Your task to perform on an android device: change the clock display to analog Image 0: 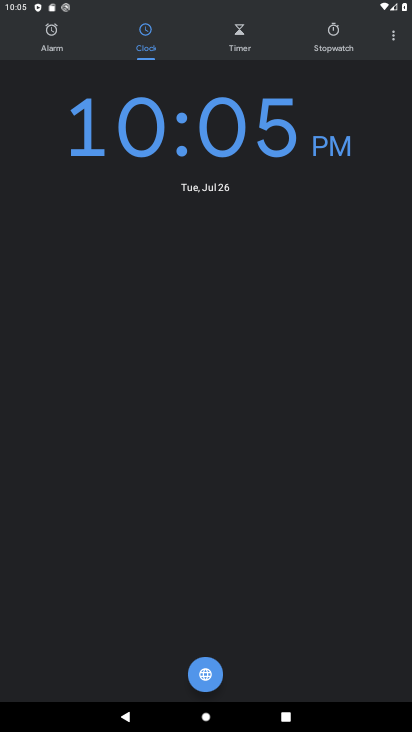
Step 0: press home button
Your task to perform on an android device: change the clock display to analog Image 1: 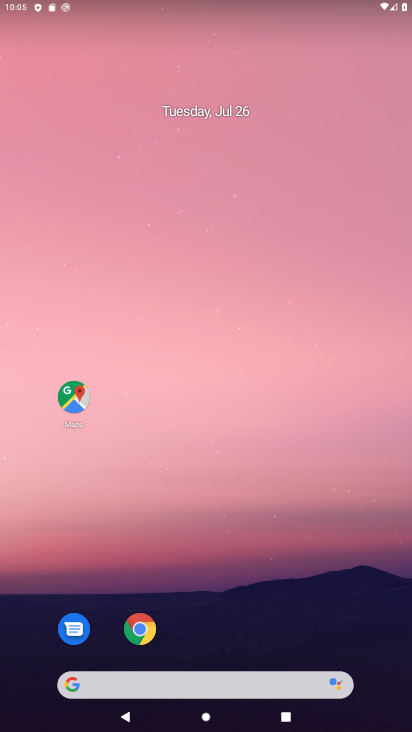
Step 1: drag from (314, 621) to (258, 233)
Your task to perform on an android device: change the clock display to analog Image 2: 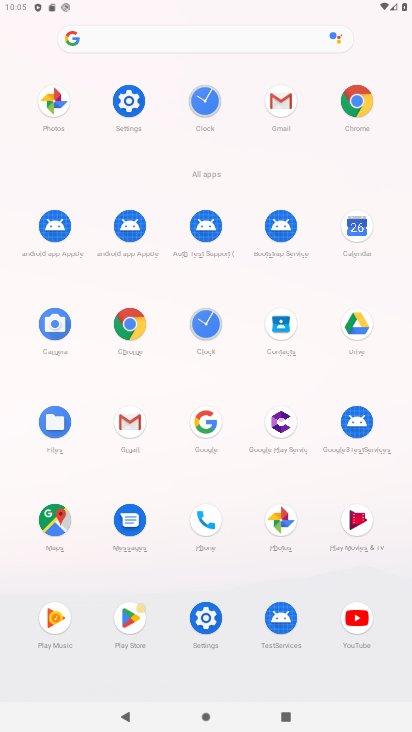
Step 2: click (124, 112)
Your task to perform on an android device: change the clock display to analog Image 3: 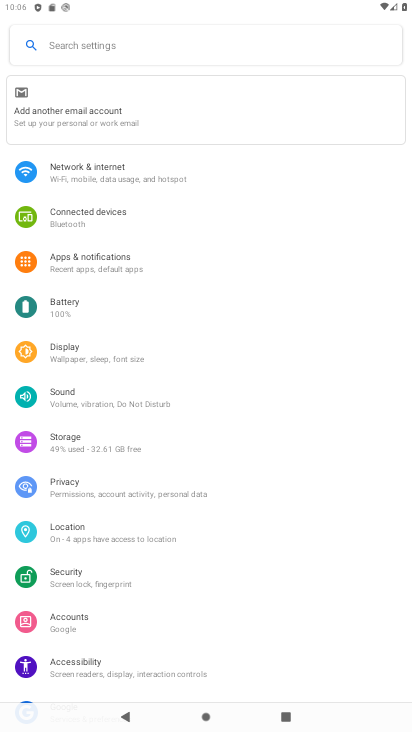
Step 3: task complete